Your task to perform on an android device: toggle javascript in the chrome app Image 0: 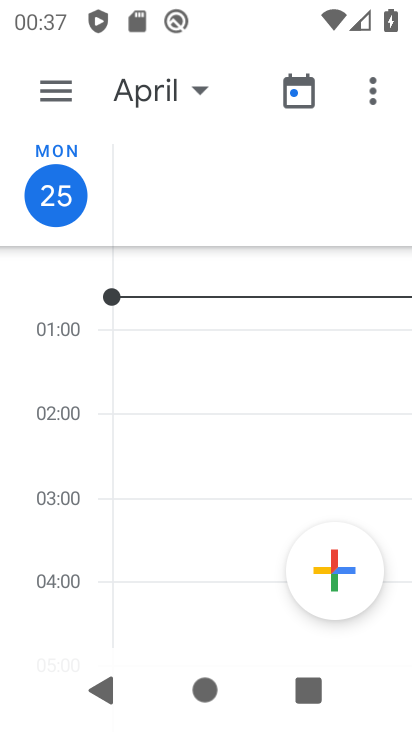
Step 0: press home button
Your task to perform on an android device: toggle javascript in the chrome app Image 1: 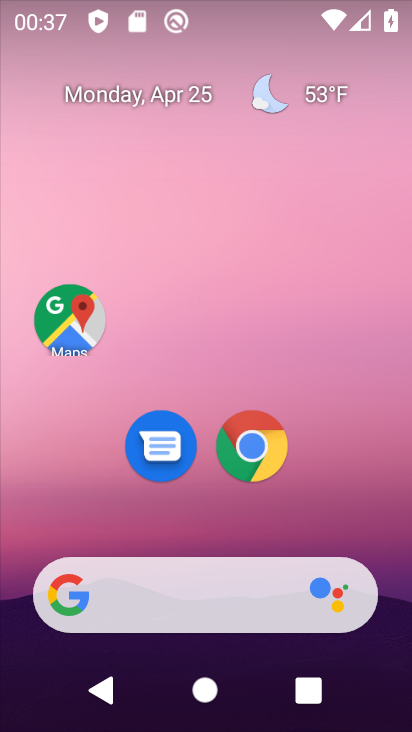
Step 1: click (252, 451)
Your task to perform on an android device: toggle javascript in the chrome app Image 2: 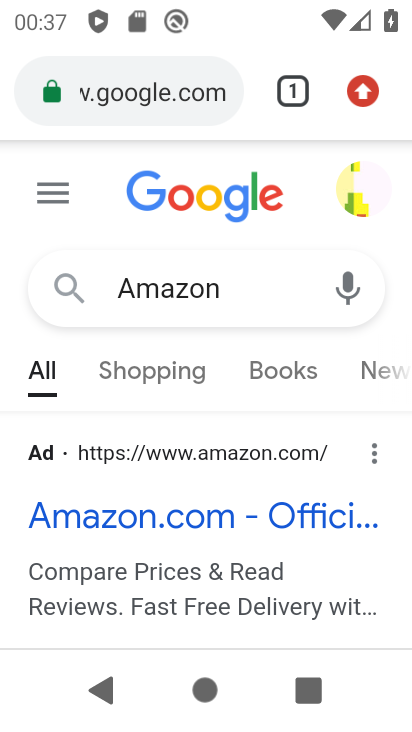
Step 2: click (366, 98)
Your task to perform on an android device: toggle javascript in the chrome app Image 3: 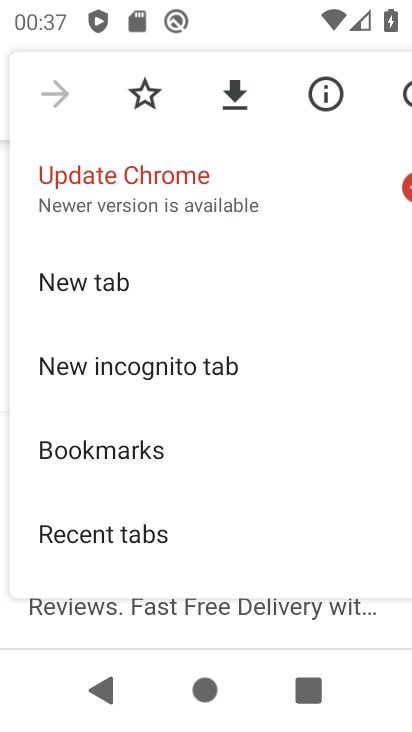
Step 3: drag from (203, 495) to (163, 155)
Your task to perform on an android device: toggle javascript in the chrome app Image 4: 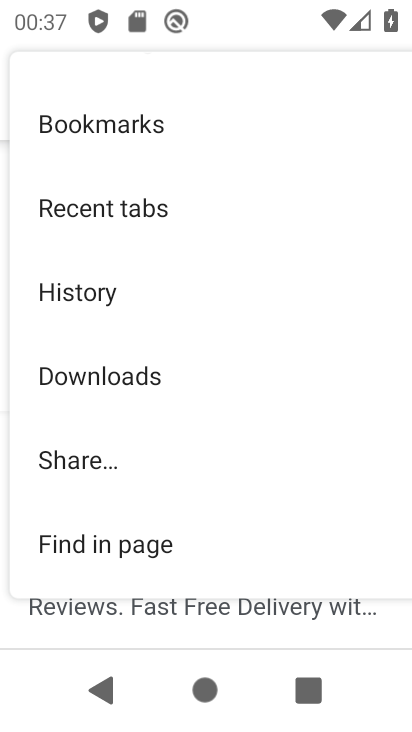
Step 4: drag from (111, 531) to (155, 110)
Your task to perform on an android device: toggle javascript in the chrome app Image 5: 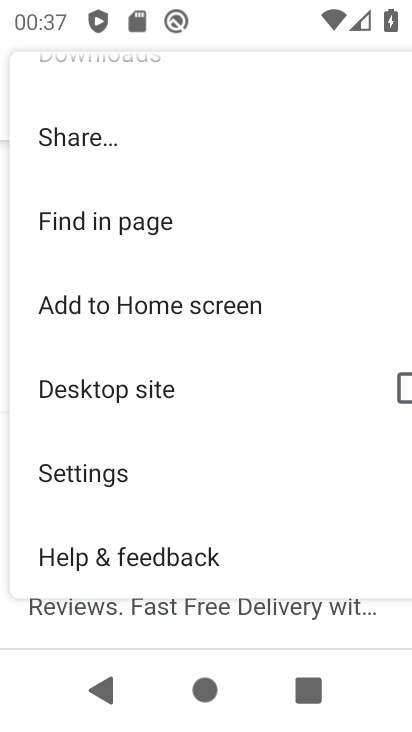
Step 5: click (105, 484)
Your task to perform on an android device: toggle javascript in the chrome app Image 6: 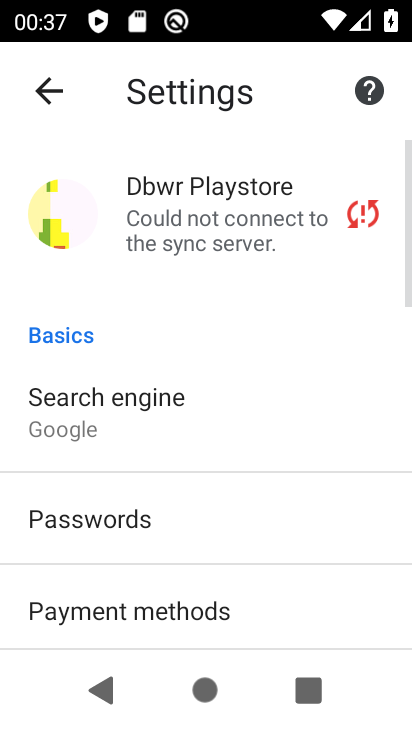
Step 6: drag from (181, 561) to (230, 181)
Your task to perform on an android device: toggle javascript in the chrome app Image 7: 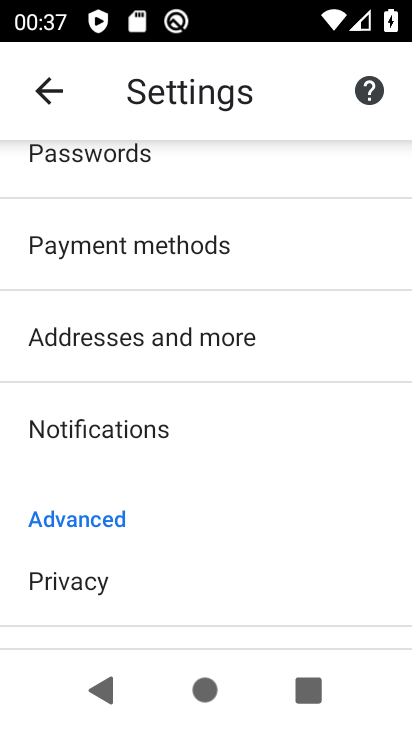
Step 7: drag from (181, 505) to (223, 85)
Your task to perform on an android device: toggle javascript in the chrome app Image 8: 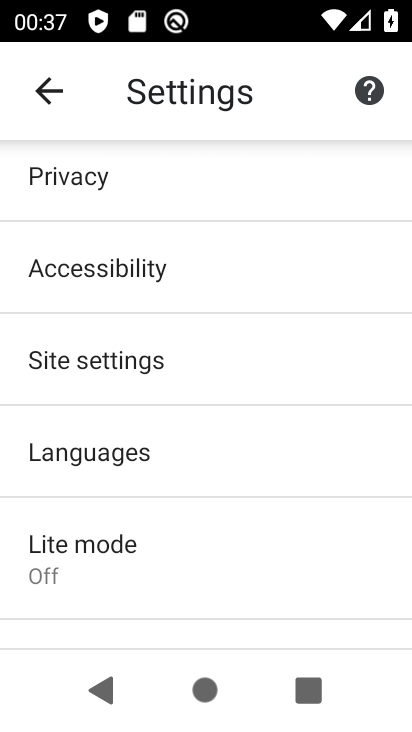
Step 8: drag from (86, 498) to (140, 281)
Your task to perform on an android device: toggle javascript in the chrome app Image 9: 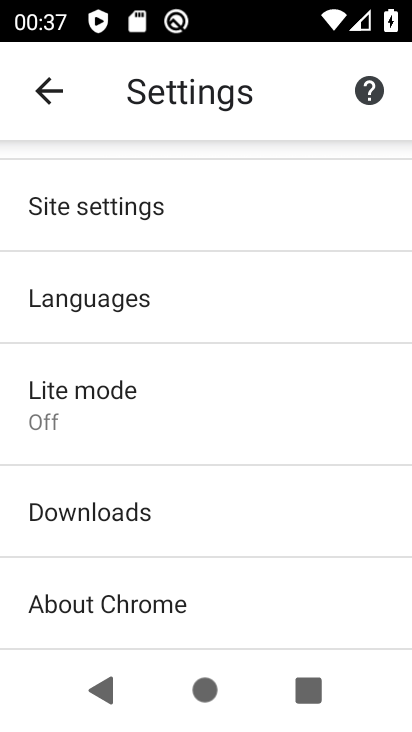
Step 9: click (130, 233)
Your task to perform on an android device: toggle javascript in the chrome app Image 10: 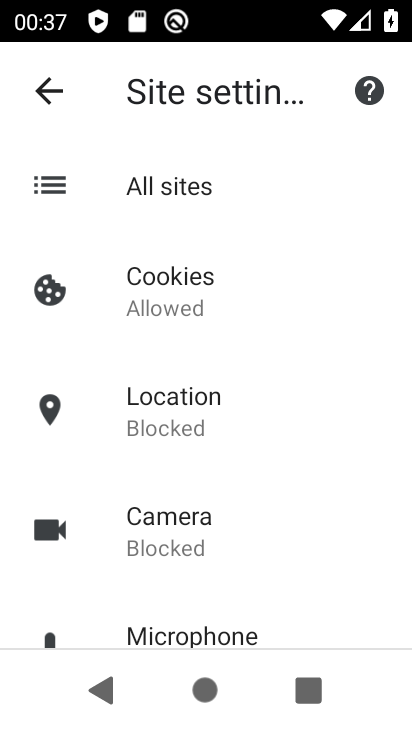
Step 10: drag from (153, 536) to (213, 203)
Your task to perform on an android device: toggle javascript in the chrome app Image 11: 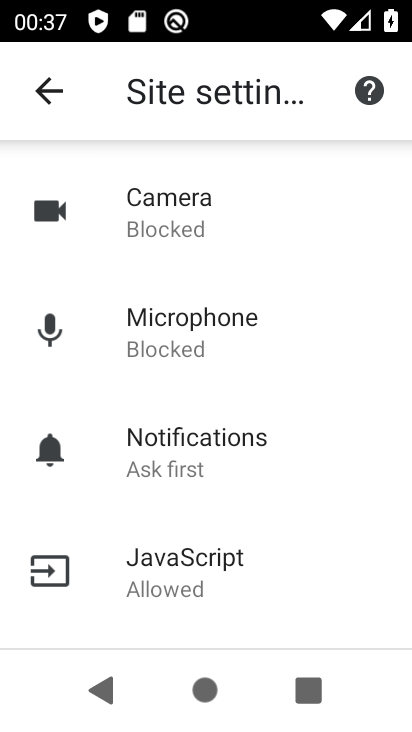
Step 11: click (199, 588)
Your task to perform on an android device: toggle javascript in the chrome app Image 12: 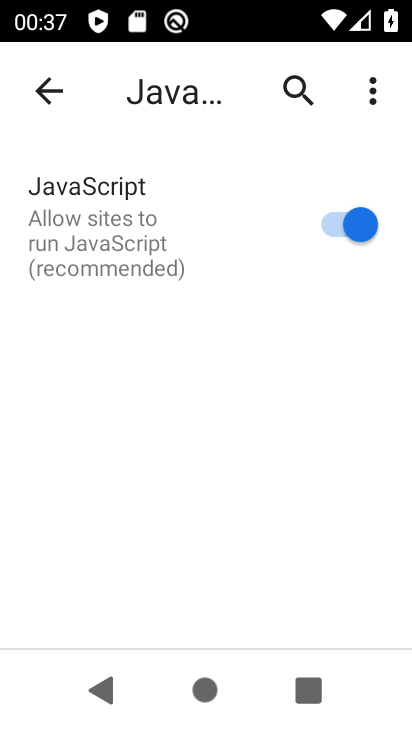
Step 12: click (312, 224)
Your task to perform on an android device: toggle javascript in the chrome app Image 13: 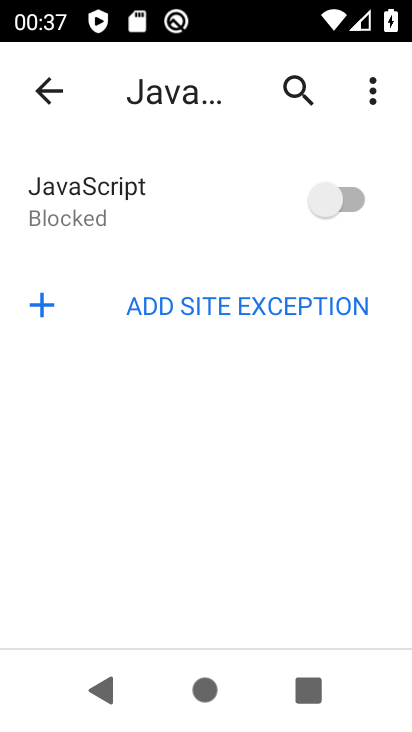
Step 13: task complete